Your task to perform on an android device: manage bookmarks in the chrome app Image 0: 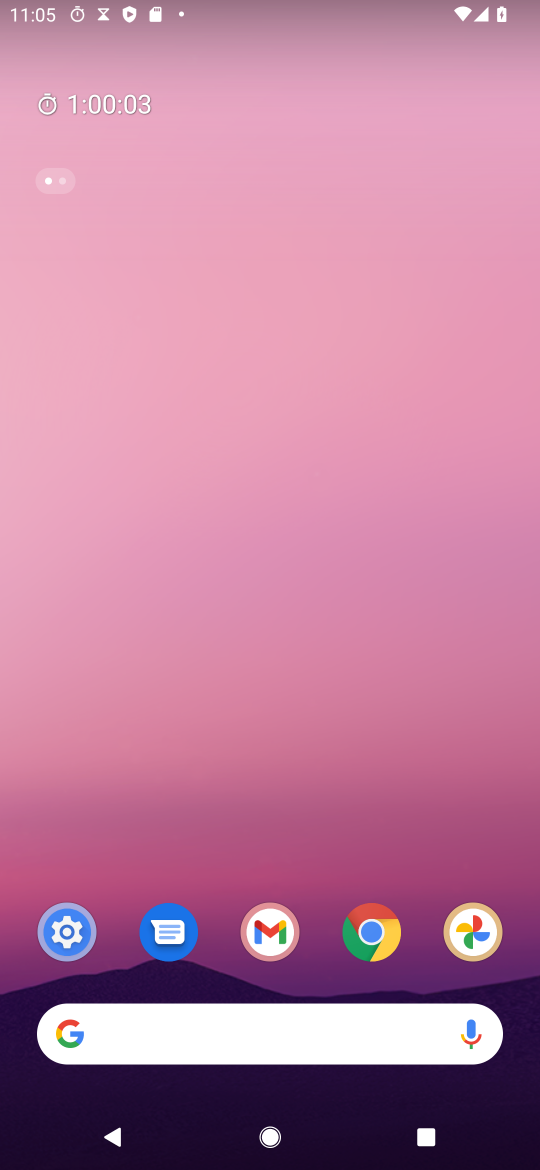
Step 0: drag from (296, 809) to (288, 104)
Your task to perform on an android device: manage bookmarks in the chrome app Image 1: 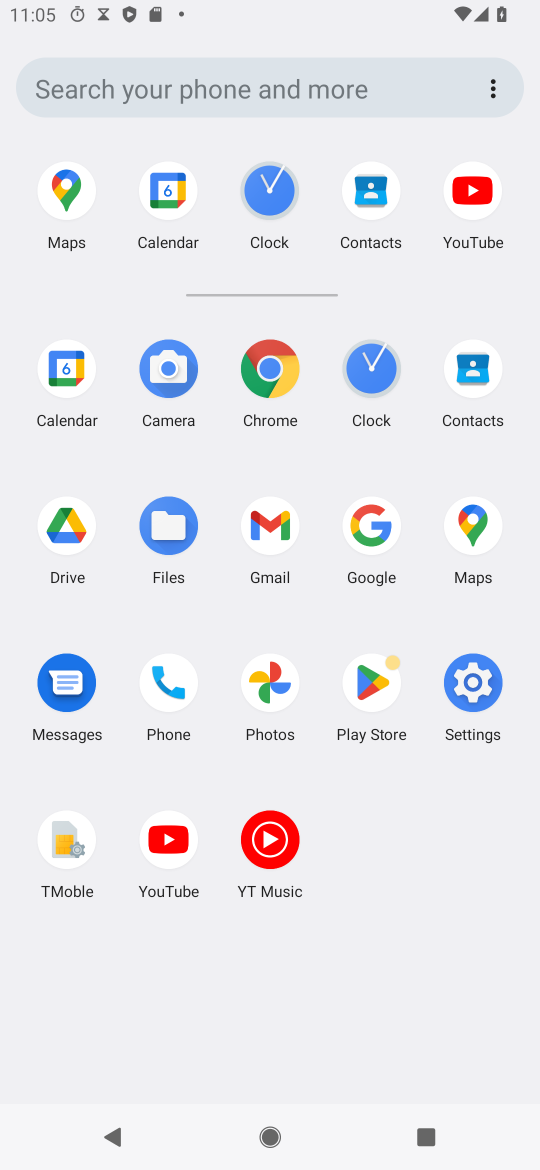
Step 1: click (281, 379)
Your task to perform on an android device: manage bookmarks in the chrome app Image 2: 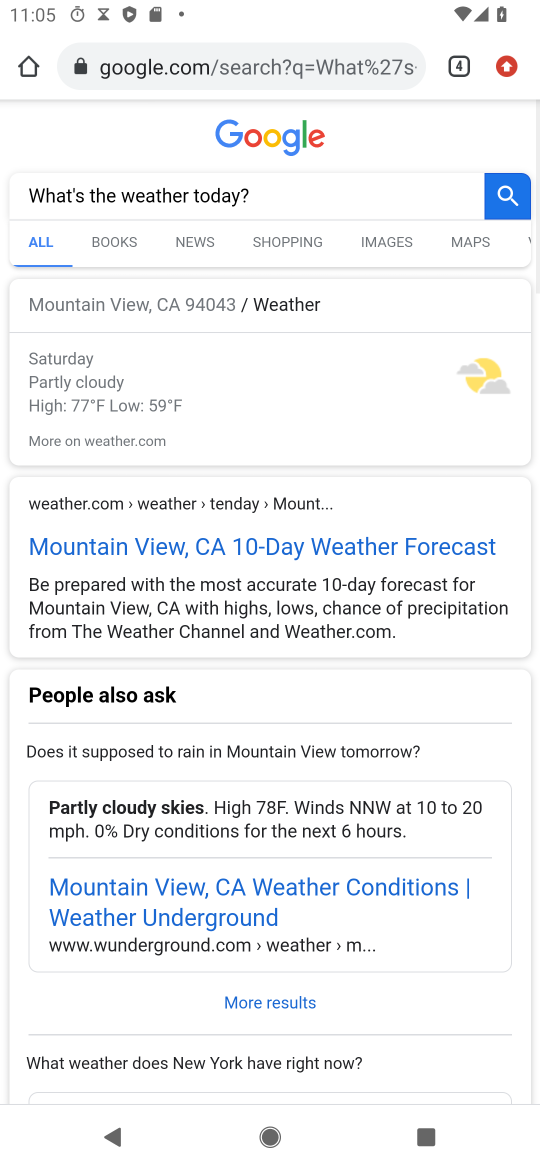
Step 2: click (511, 68)
Your task to perform on an android device: manage bookmarks in the chrome app Image 3: 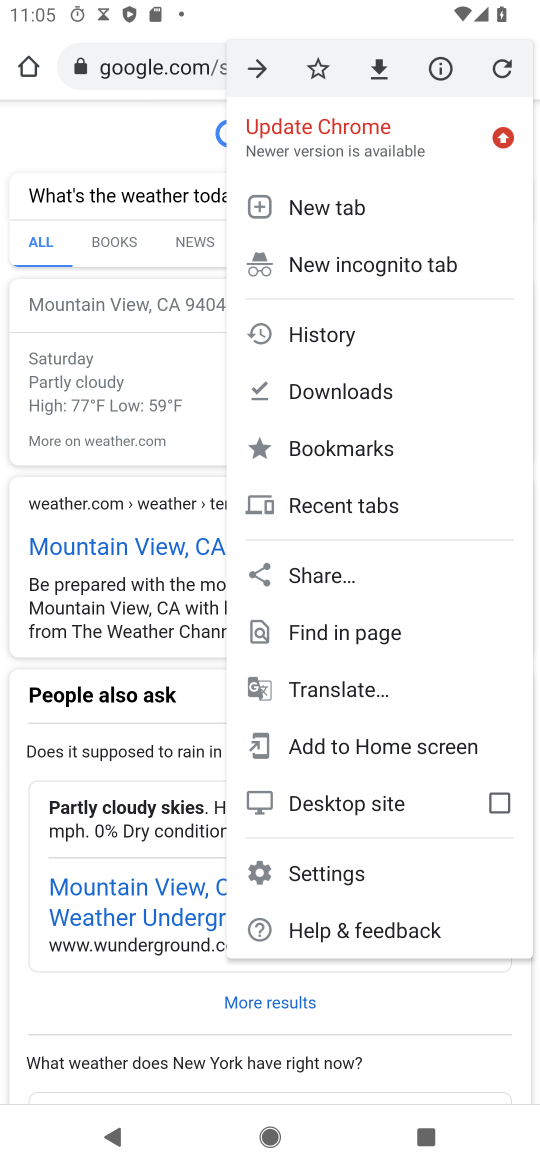
Step 3: click (378, 438)
Your task to perform on an android device: manage bookmarks in the chrome app Image 4: 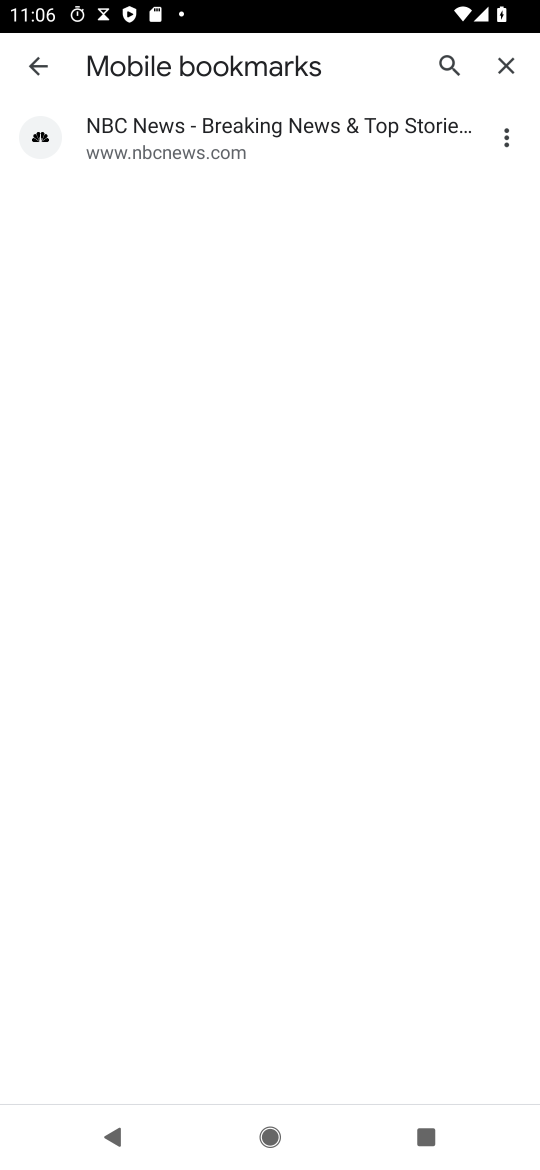
Step 4: click (321, 162)
Your task to perform on an android device: manage bookmarks in the chrome app Image 5: 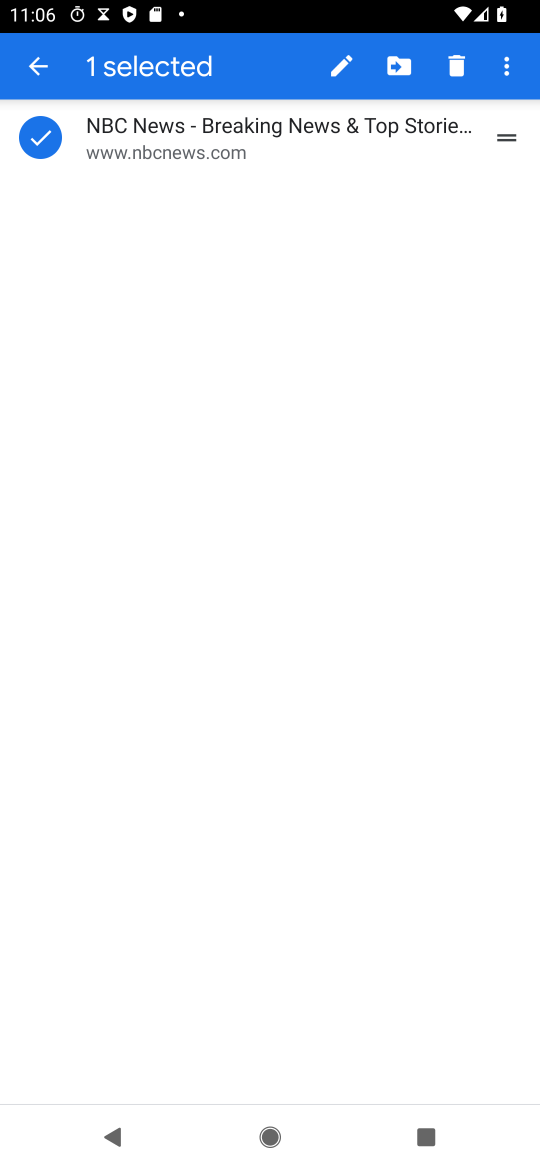
Step 5: click (389, 84)
Your task to perform on an android device: manage bookmarks in the chrome app Image 6: 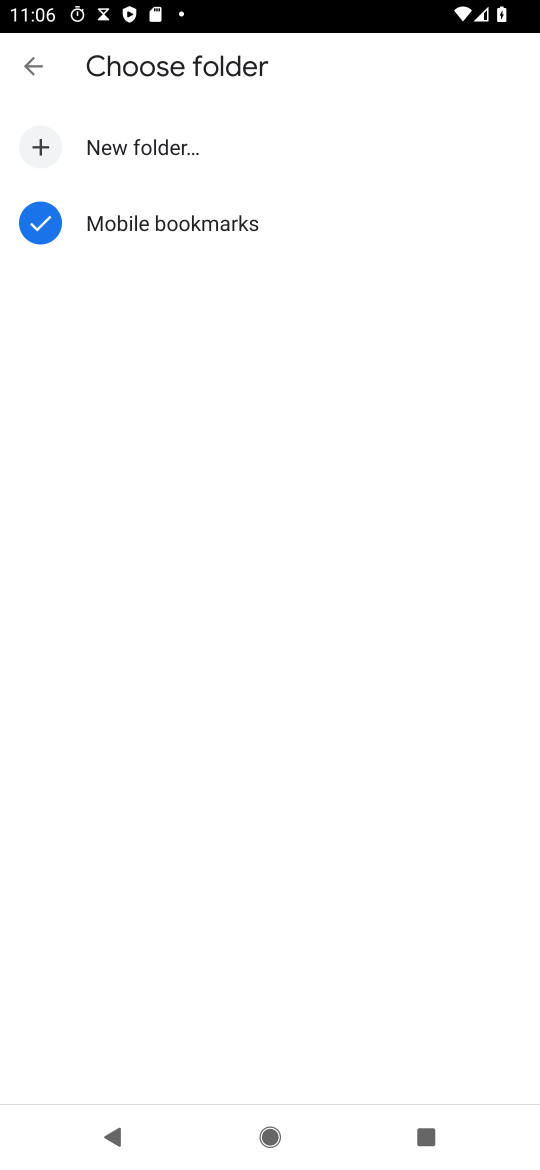
Step 6: click (274, 166)
Your task to perform on an android device: manage bookmarks in the chrome app Image 7: 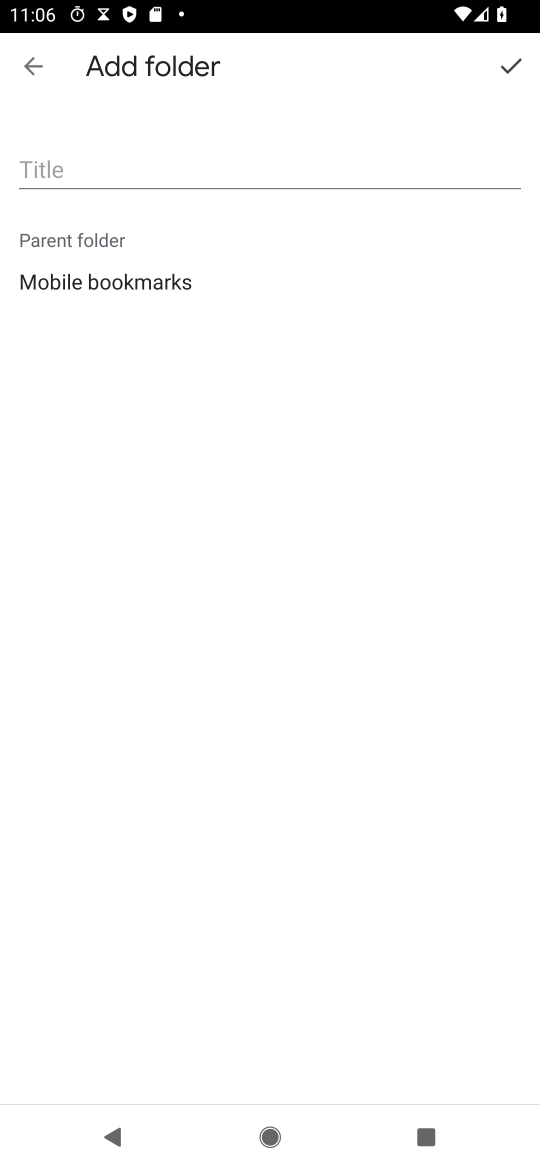
Step 7: type "bkbkj"
Your task to perform on an android device: manage bookmarks in the chrome app Image 8: 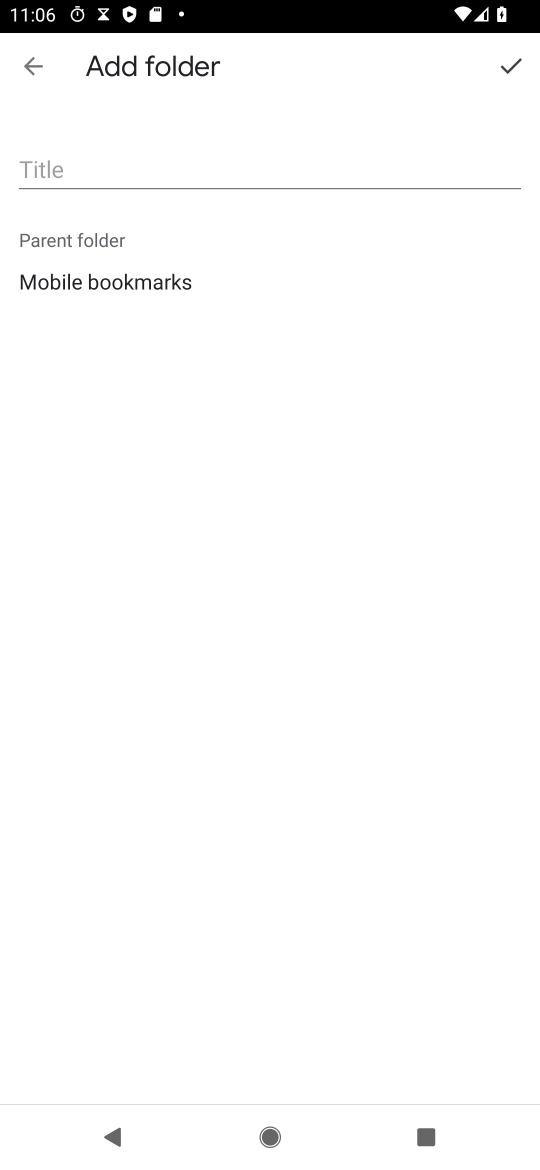
Step 8: click (513, 69)
Your task to perform on an android device: manage bookmarks in the chrome app Image 9: 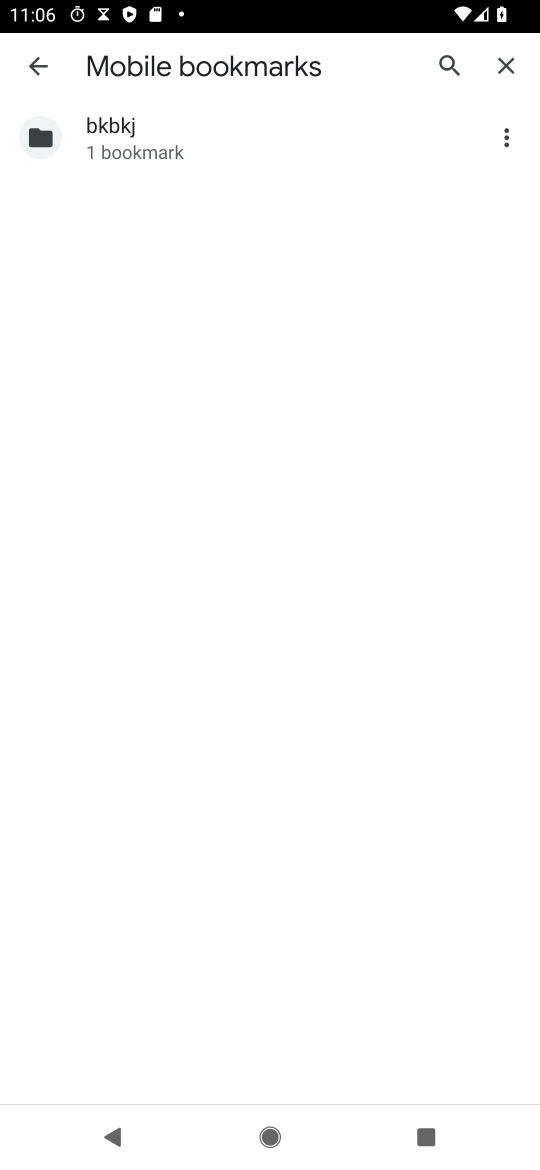
Step 9: task complete